Your task to perform on an android device: Search for sushi restaurants on Maps Image 0: 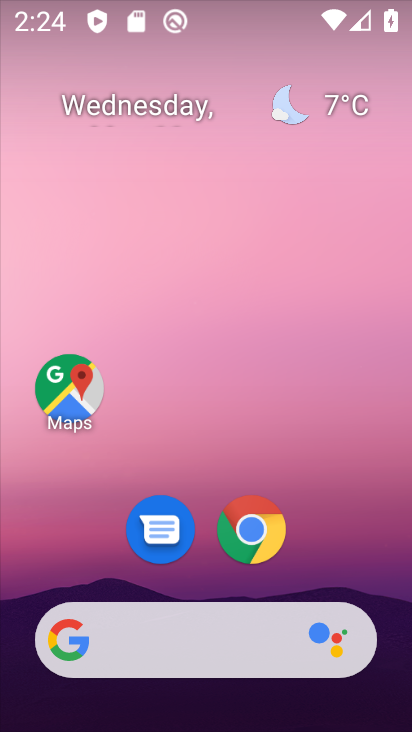
Step 0: press back button
Your task to perform on an android device: Search for sushi restaurants on Maps Image 1: 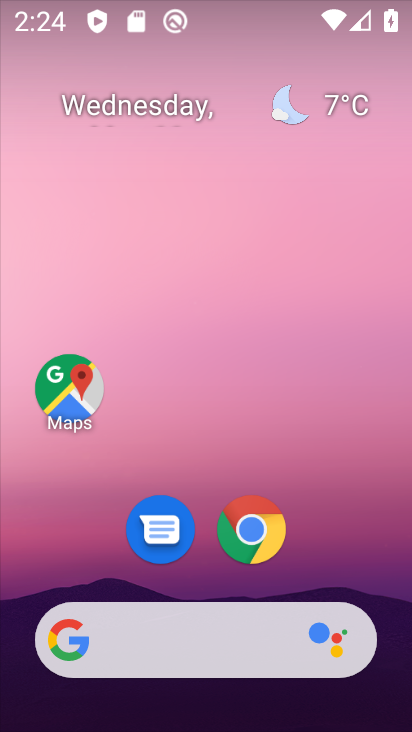
Step 1: click (60, 376)
Your task to perform on an android device: Search for sushi restaurants on Maps Image 2: 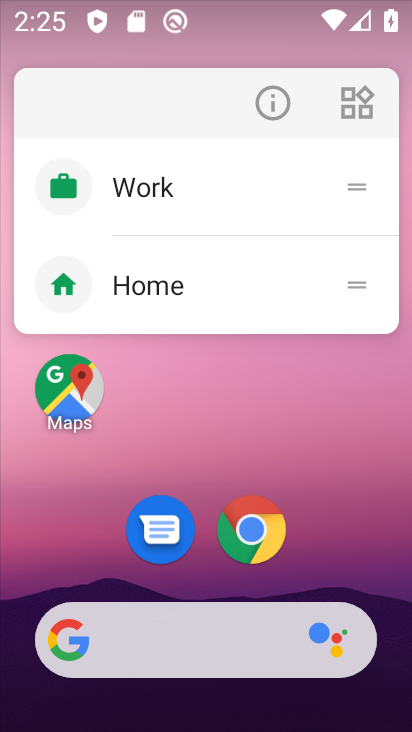
Step 2: click (66, 396)
Your task to perform on an android device: Search for sushi restaurants on Maps Image 3: 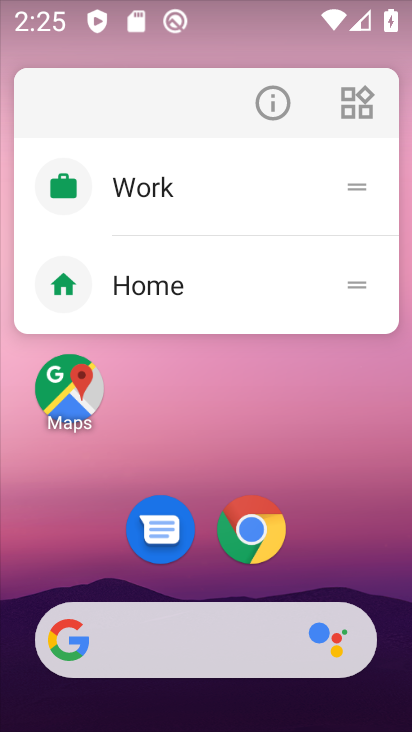
Step 3: click (66, 385)
Your task to perform on an android device: Search for sushi restaurants on Maps Image 4: 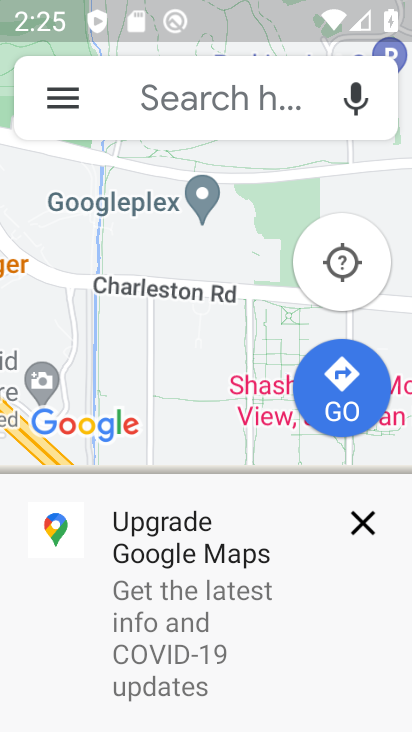
Step 4: click (159, 78)
Your task to perform on an android device: Search for sushi restaurants on Maps Image 5: 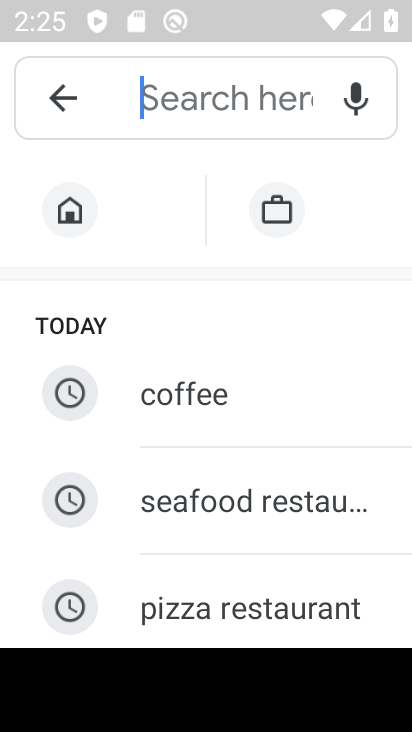
Step 5: drag from (164, 573) to (267, 295)
Your task to perform on an android device: Search for sushi restaurants on Maps Image 6: 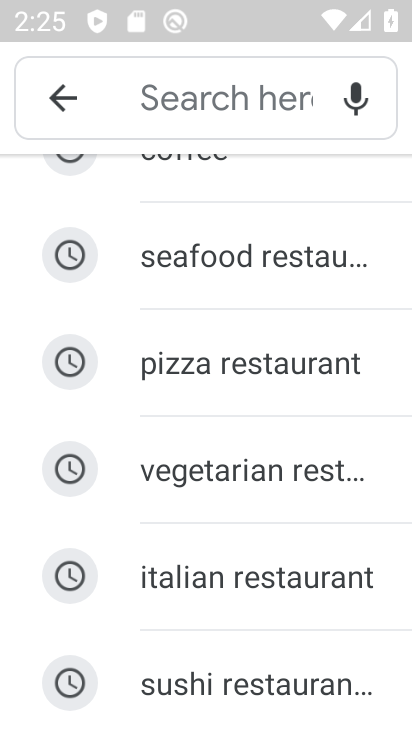
Step 6: click (258, 690)
Your task to perform on an android device: Search for sushi restaurants on Maps Image 7: 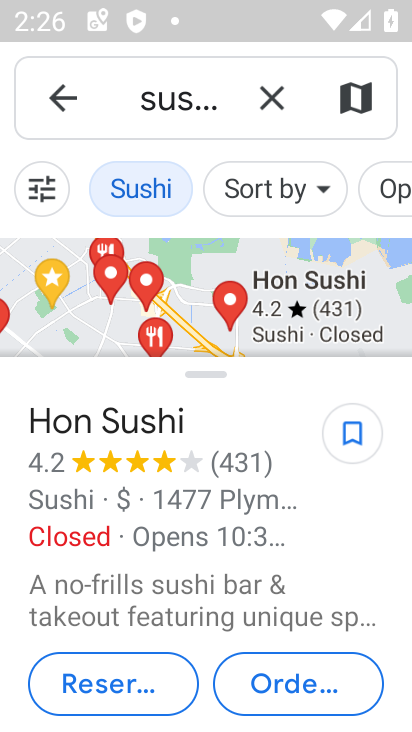
Step 7: task complete